Your task to perform on an android device: turn on the 24-hour format for clock Image 0: 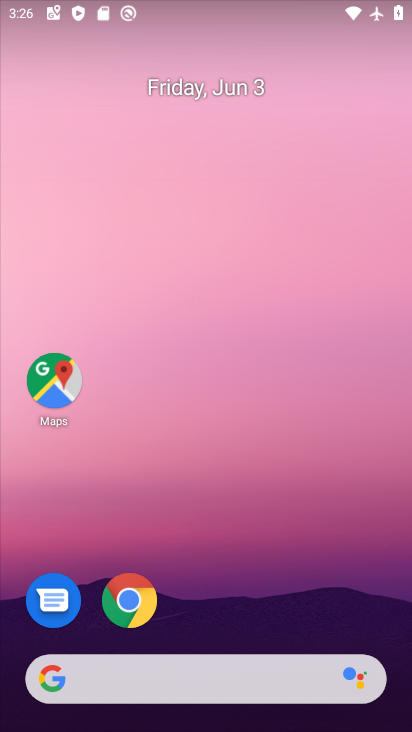
Step 0: drag from (225, 596) to (302, 46)
Your task to perform on an android device: turn on the 24-hour format for clock Image 1: 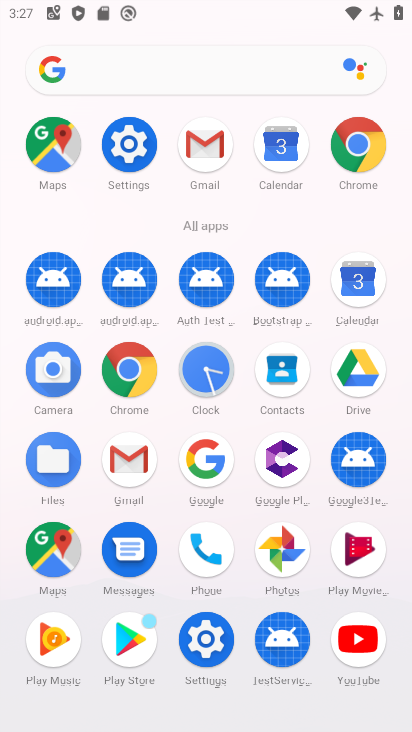
Step 1: click (210, 649)
Your task to perform on an android device: turn on the 24-hour format for clock Image 2: 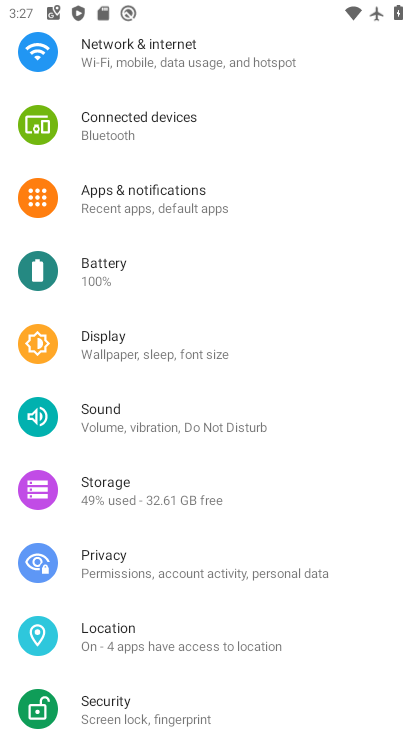
Step 2: drag from (169, 613) to (195, 461)
Your task to perform on an android device: turn on the 24-hour format for clock Image 3: 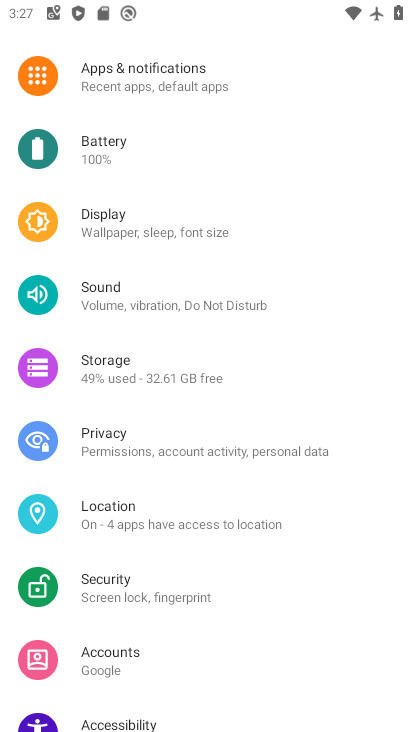
Step 3: drag from (161, 650) to (208, 399)
Your task to perform on an android device: turn on the 24-hour format for clock Image 4: 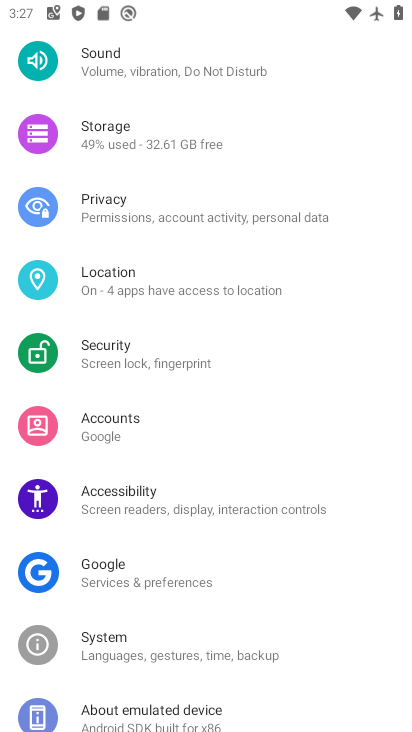
Step 4: click (161, 654)
Your task to perform on an android device: turn on the 24-hour format for clock Image 5: 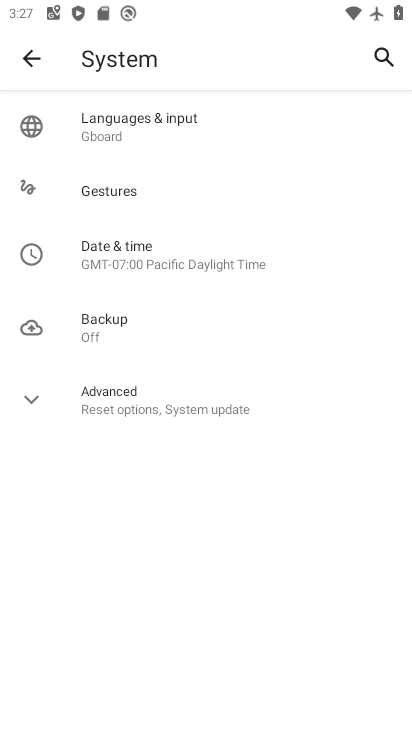
Step 5: click (172, 260)
Your task to perform on an android device: turn on the 24-hour format for clock Image 6: 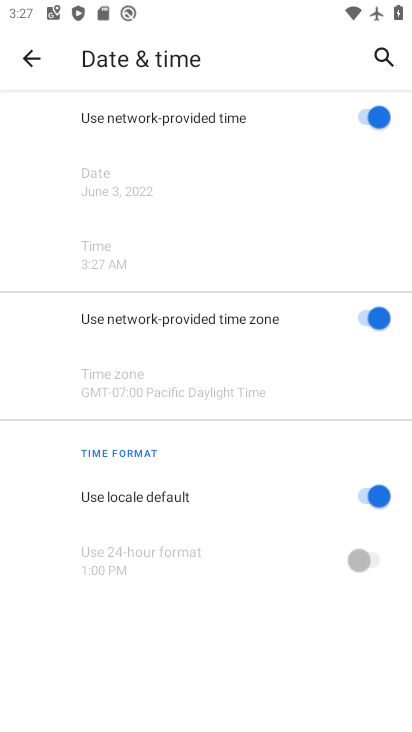
Step 6: click (352, 500)
Your task to perform on an android device: turn on the 24-hour format for clock Image 7: 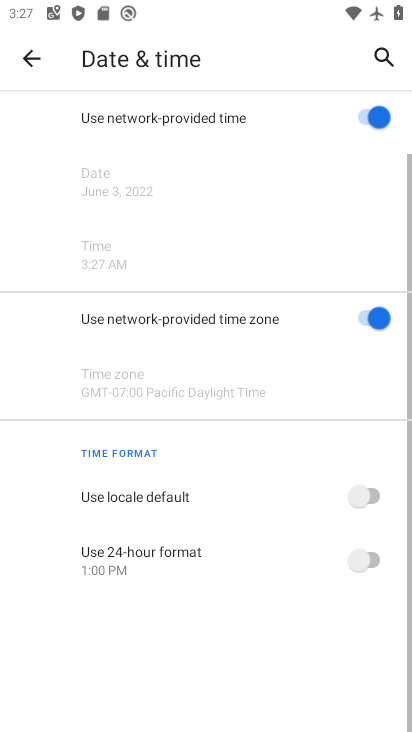
Step 7: click (379, 560)
Your task to perform on an android device: turn on the 24-hour format for clock Image 8: 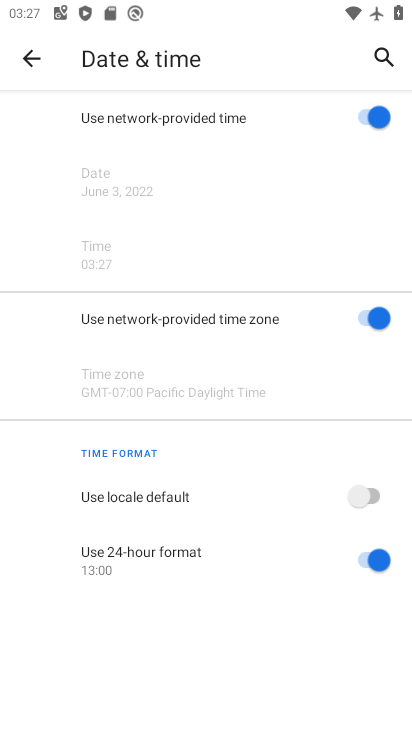
Step 8: task complete